Your task to perform on an android device: check data usage Image 0: 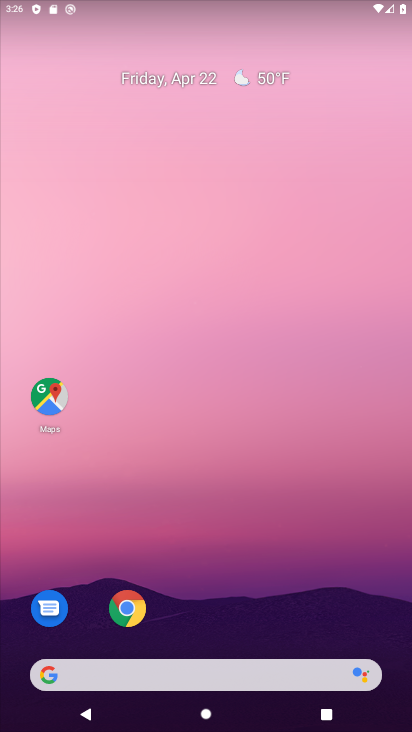
Step 0: drag from (214, 693) to (216, 109)
Your task to perform on an android device: check data usage Image 1: 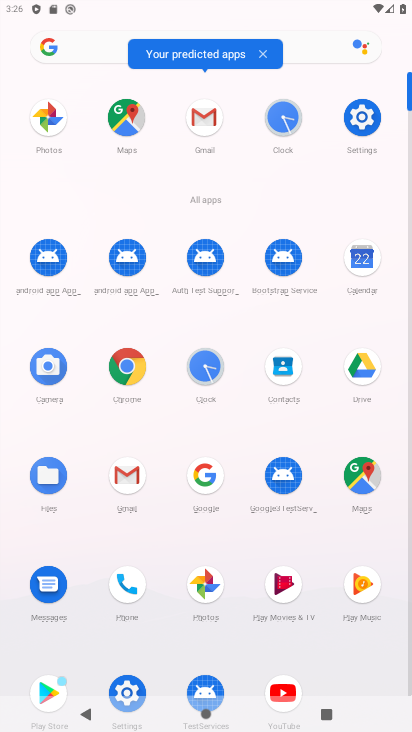
Step 1: click (359, 123)
Your task to perform on an android device: check data usage Image 2: 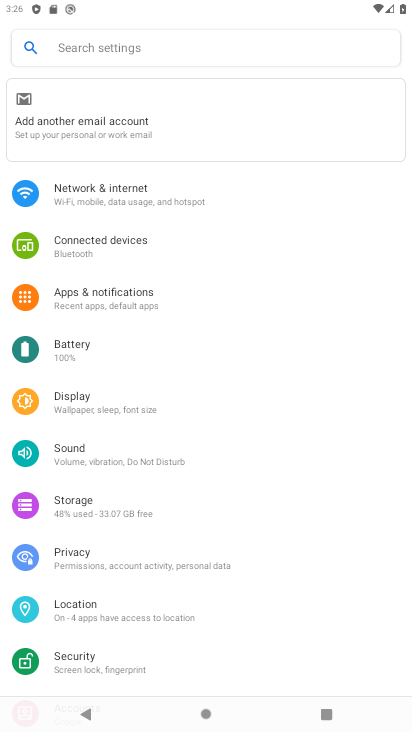
Step 2: click (90, 196)
Your task to perform on an android device: check data usage Image 3: 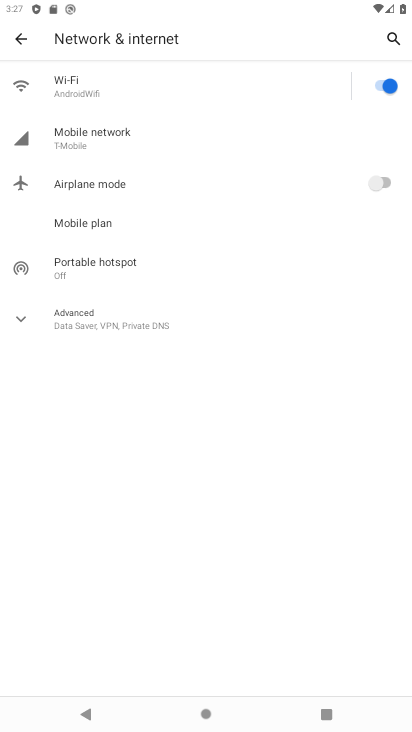
Step 3: click (86, 134)
Your task to perform on an android device: check data usage Image 4: 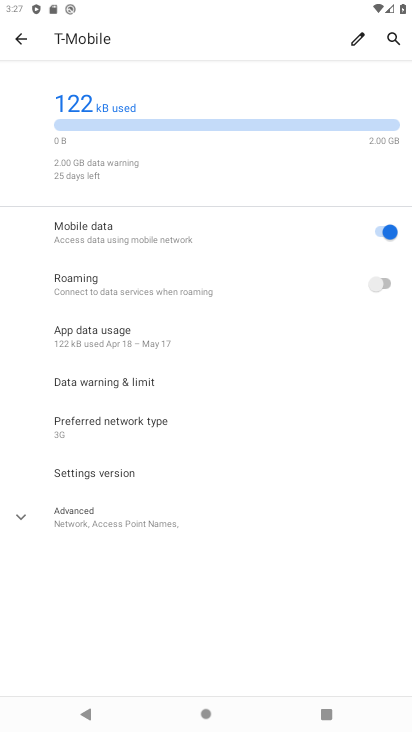
Step 4: click (92, 329)
Your task to perform on an android device: check data usage Image 5: 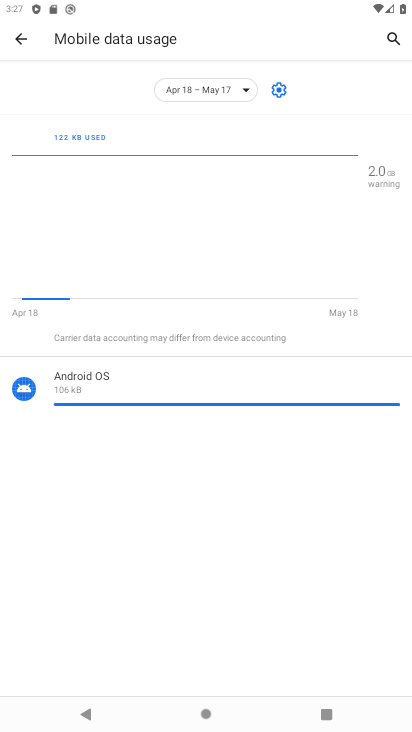
Step 5: task complete